Your task to perform on an android device: Open eBay Image 0: 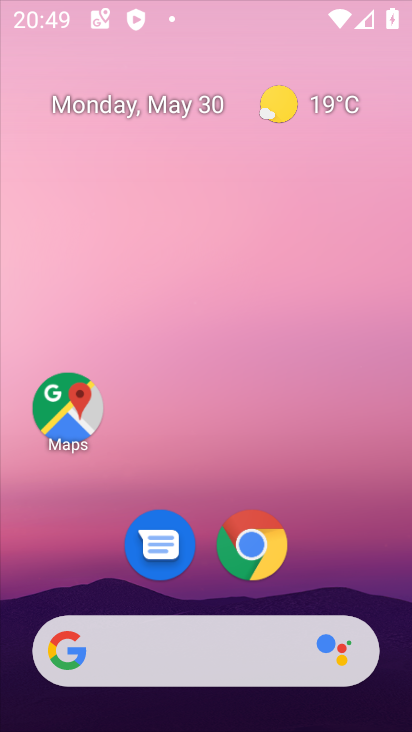
Step 0: drag from (318, 557) to (321, 160)
Your task to perform on an android device: Open eBay Image 1: 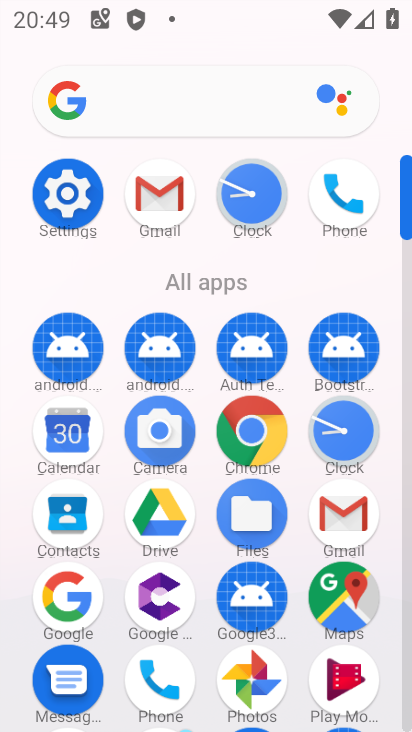
Step 1: click (246, 433)
Your task to perform on an android device: Open eBay Image 2: 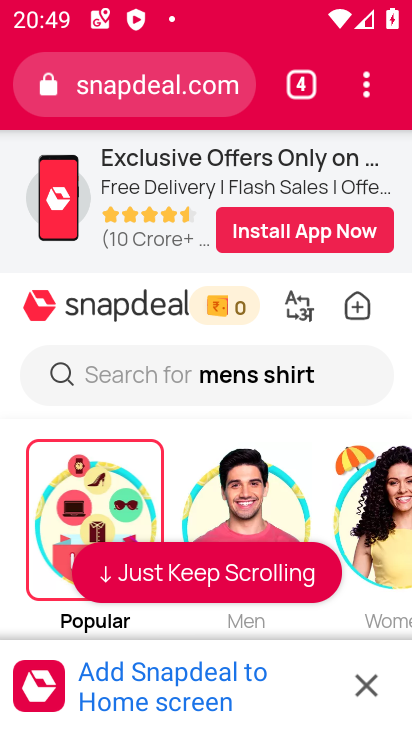
Step 2: click (299, 89)
Your task to perform on an android device: Open eBay Image 3: 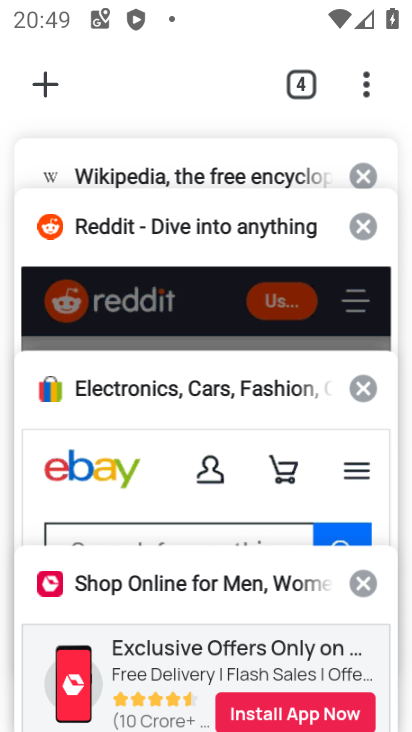
Step 3: click (93, 443)
Your task to perform on an android device: Open eBay Image 4: 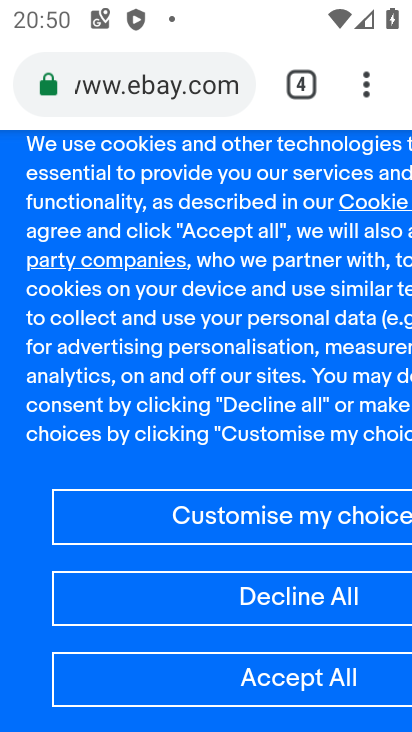
Step 4: task complete